Your task to perform on an android device: toggle data saver in the chrome app Image 0: 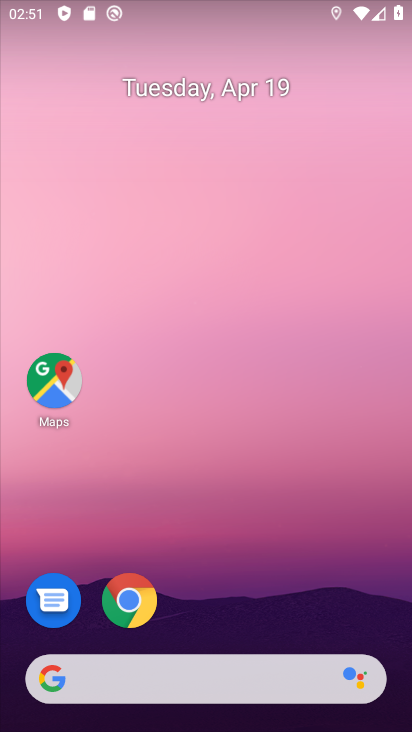
Step 0: drag from (400, 581) to (250, 106)
Your task to perform on an android device: toggle data saver in the chrome app Image 1: 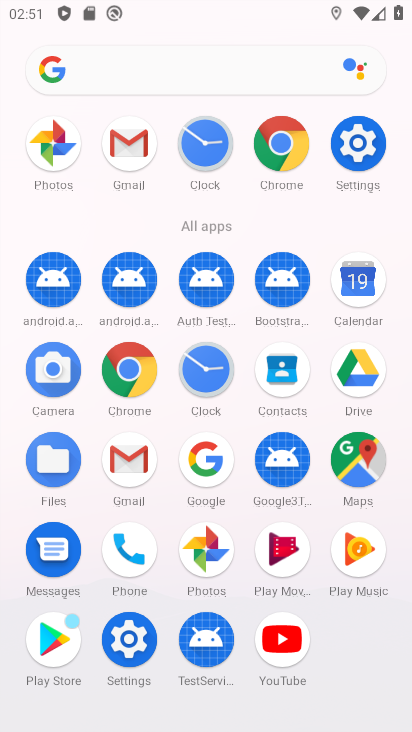
Step 1: click (296, 157)
Your task to perform on an android device: toggle data saver in the chrome app Image 2: 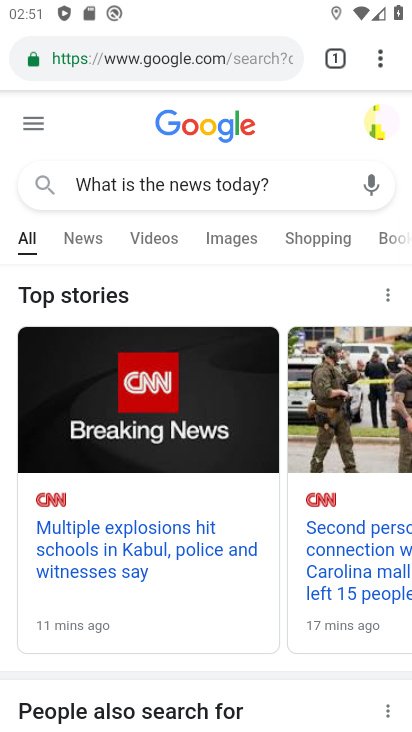
Step 2: click (391, 66)
Your task to perform on an android device: toggle data saver in the chrome app Image 3: 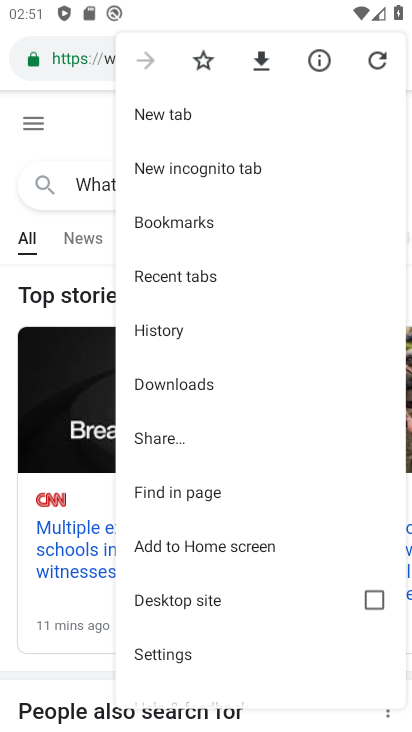
Step 3: drag from (247, 637) to (239, 306)
Your task to perform on an android device: toggle data saver in the chrome app Image 4: 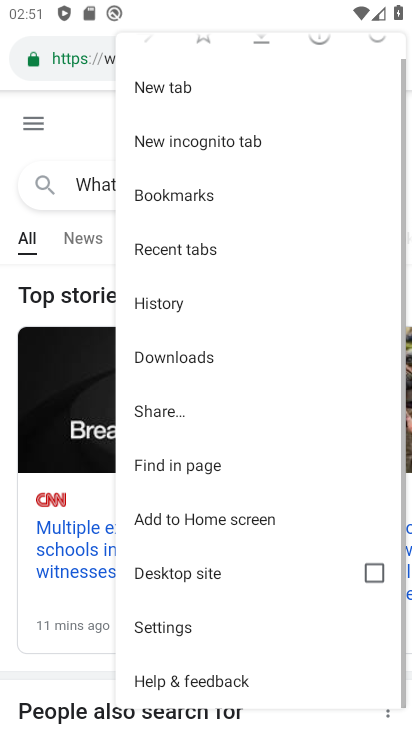
Step 4: click (213, 633)
Your task to perform on an android device: toggle data saver in the chrome app Image 5: 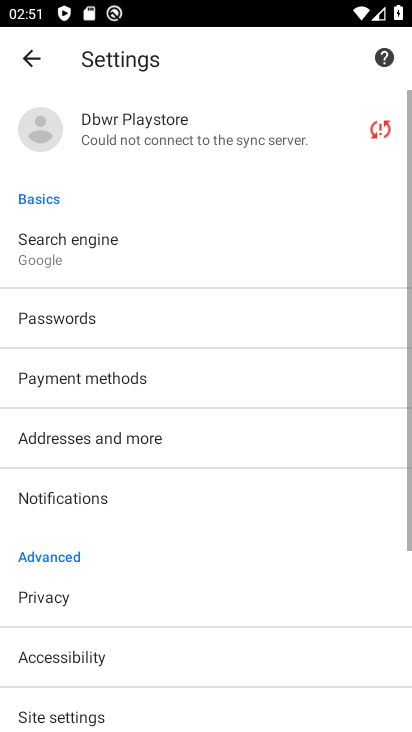
Step 5: drag from (213, 633) to (202, 148)
Your task to perform on an android device: toggle data saver in the chrome app Image 6: 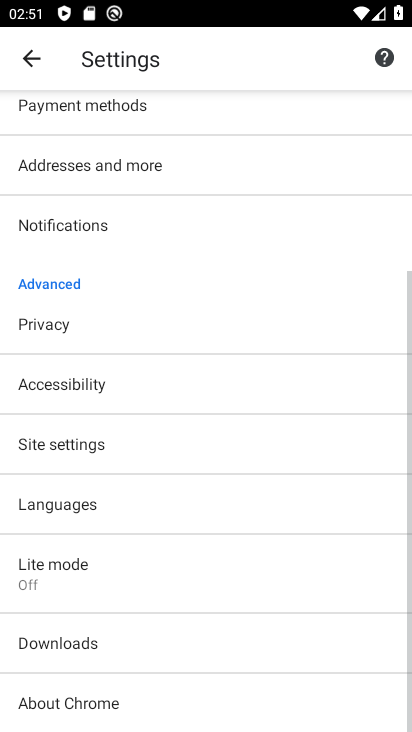
Step 6: click (184, 589)
Your task to perform on an android device: toggle data saver in the chrome app Image 7: 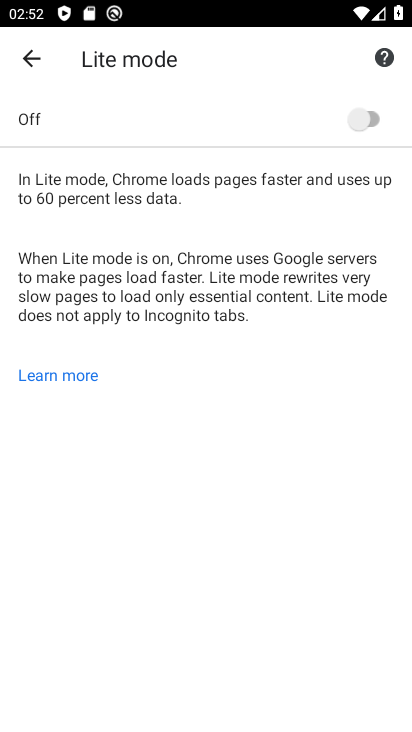
Step 7: task complete